Your task to perform on an android device: change the upload size in google photos Image 0: 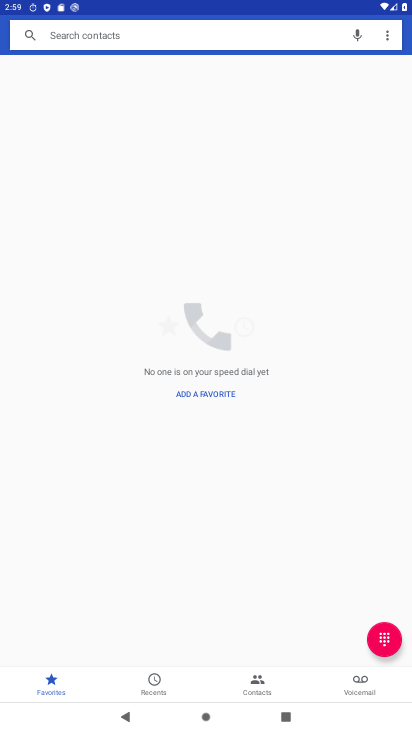
Step 0: press home button
Your task to perform on an android device: change the upload size in google photos Image 1: 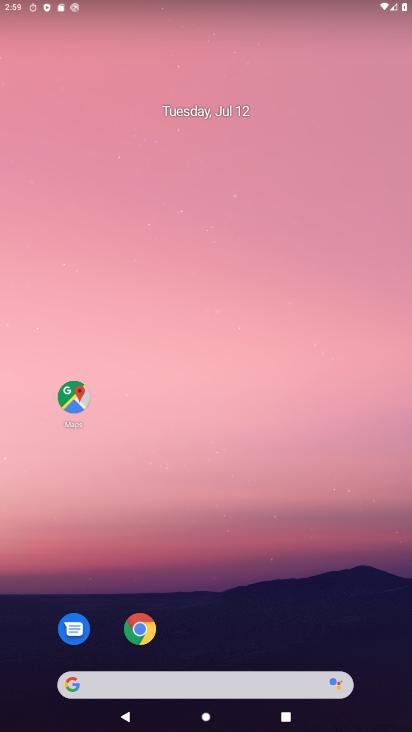
Step 1: drag from (236, 622) to (364, 34)
Your task to perform on an android device: change the upload size in google photos Image 2: 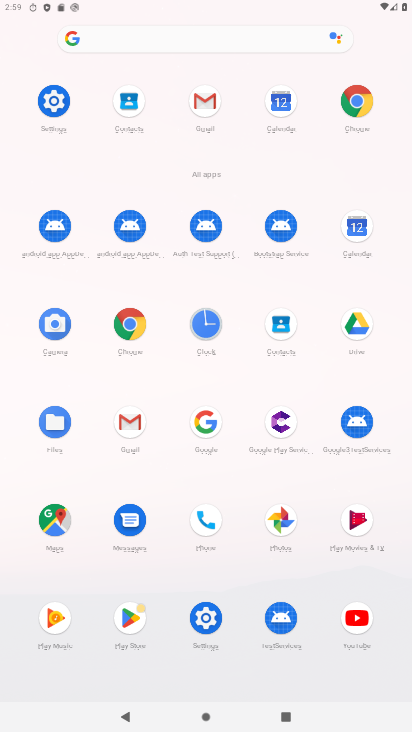
Step 2: click (275, 522)
Your task to perform on an android device: change the upload size in google photos Image 3: 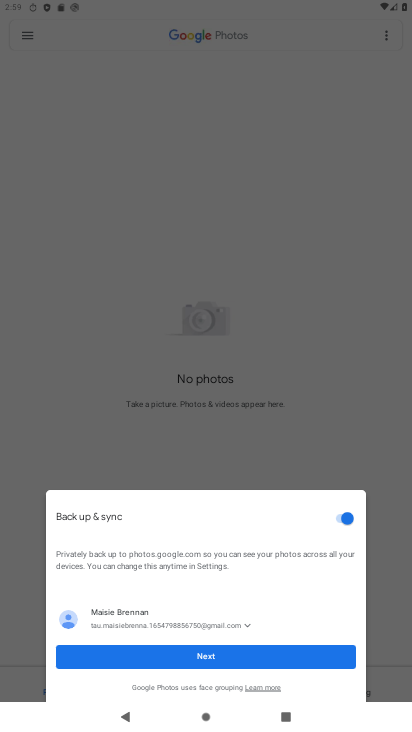
Step 3: click (320, 658)
Your task to perform on an android device: change the upload size in google photos Image 4: 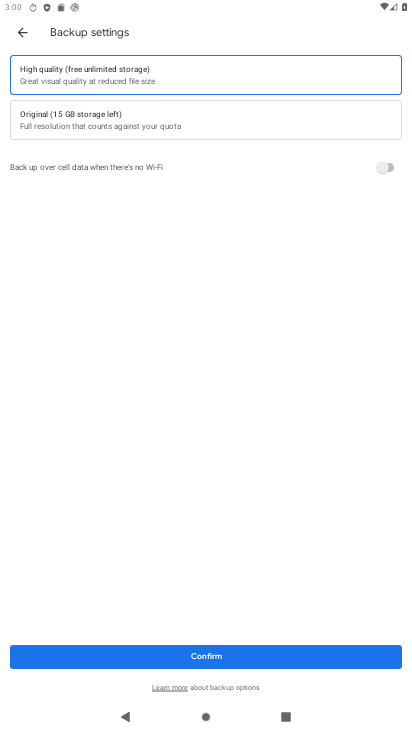
Step 4: click (15, 36)
Your task to perform on an android device: change the upload size in google photos Image 5: 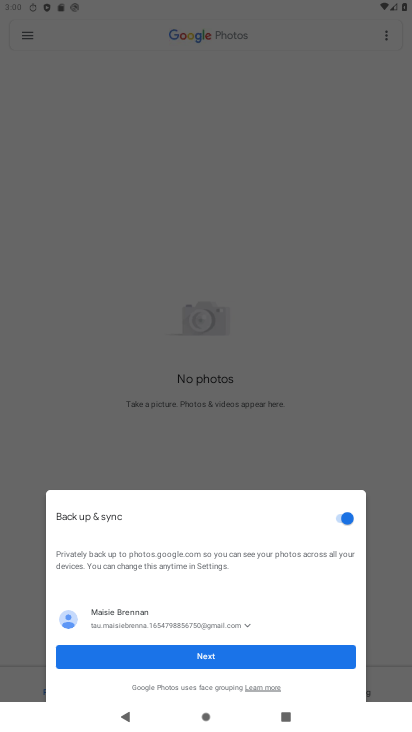
Step 5: click (172, 647)
Your task to perform on an android device: change the upload size in google photos Image 6: 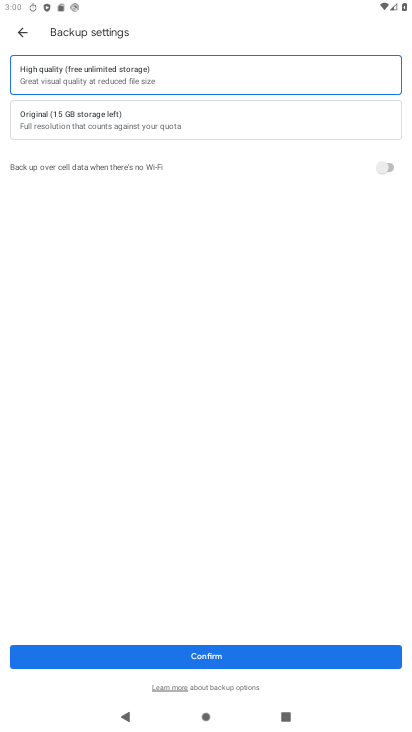
Step 6: click (15, 33)
Your task to perform on an android device: change the upload size in google photos Image 7: 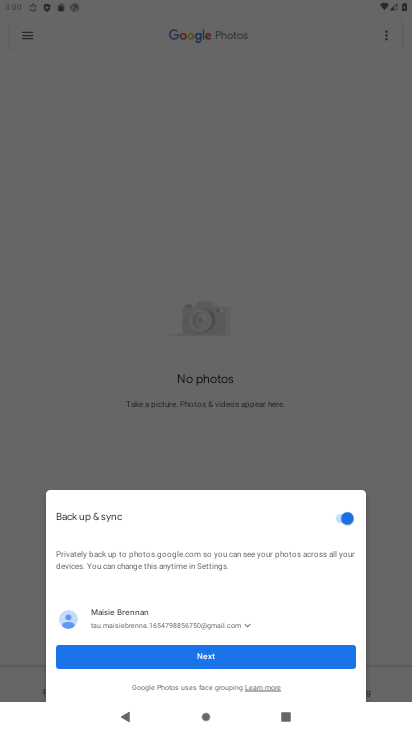
Step 7: click (143, 661)
Your task to perform on an android device: change the upload size in google photos Image 8: 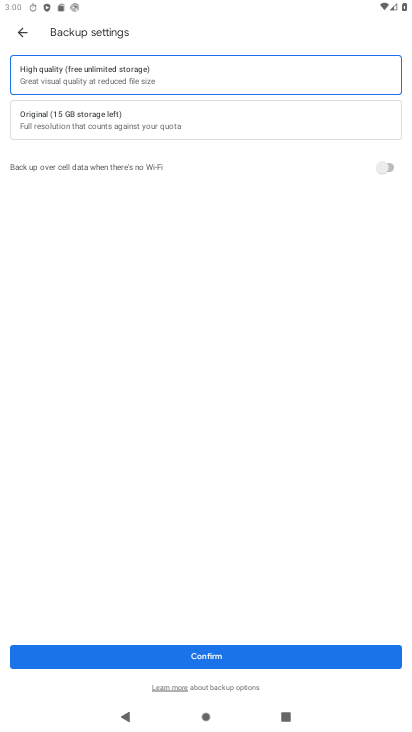
Step 8: click (143, 661)
Your task to perform on an android device: change the upload size in google photos Image 9: 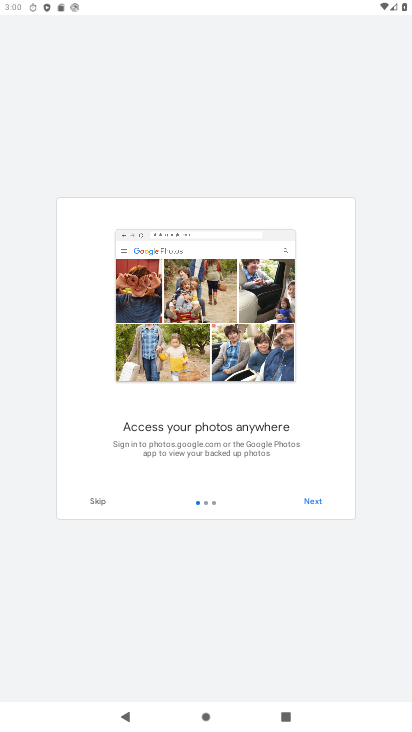
Step 9: click (94, 498)
Your task to perform on an android device: change the upload size in google photos Image 10: 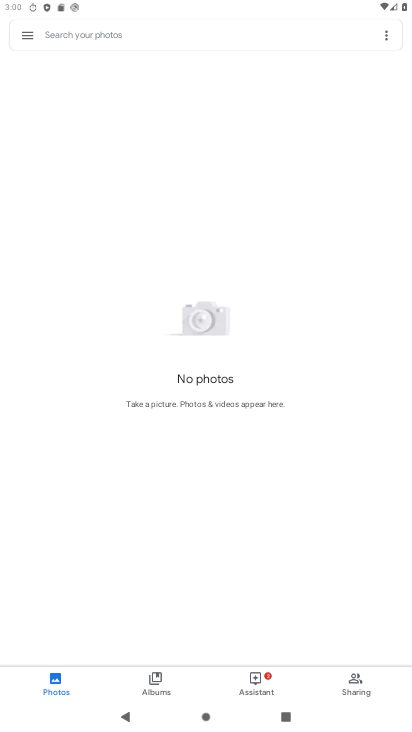
Step 10: click (53, 688)
Your task to perform on an android device: change the upload size in google photos Image 11: 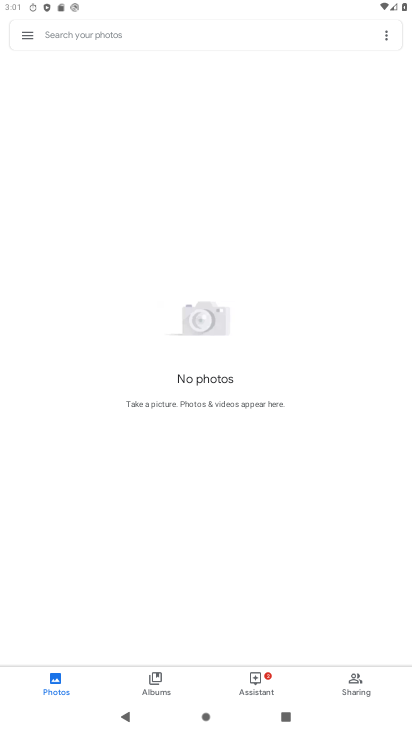
Step 11: click (53, 688)
Your task to perform on an android device: change the upload size in google photos Image 12: 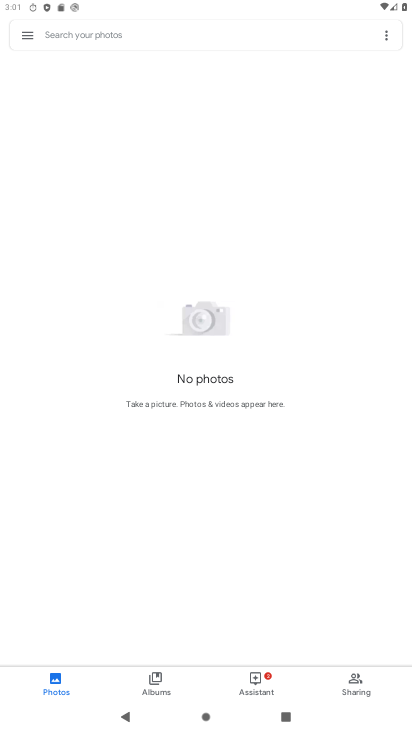
Step 12: click (36, 32)
Your task to perform on an android device: change the upload size in google photos Image 13: 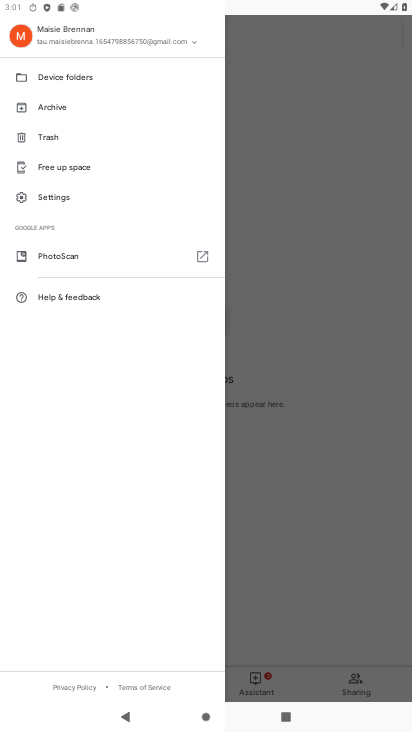
Step 13: click (42, 193)
Your task to perform on an android device: change the upload size in google photos Image 14: 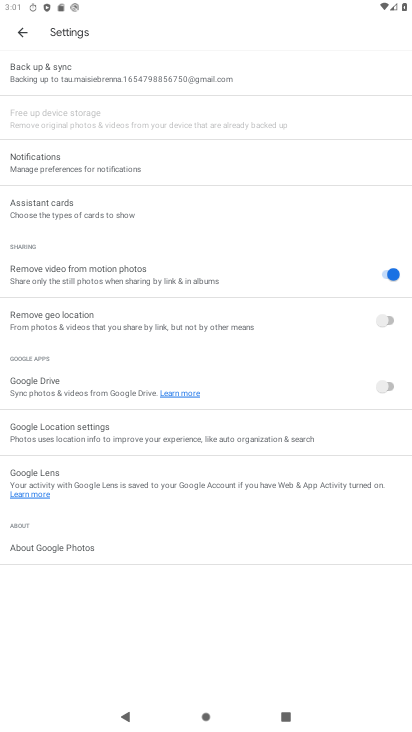
Step 14: click (32, 75)
Your task to perform on an android device: change the upload size in google photos Image 15: 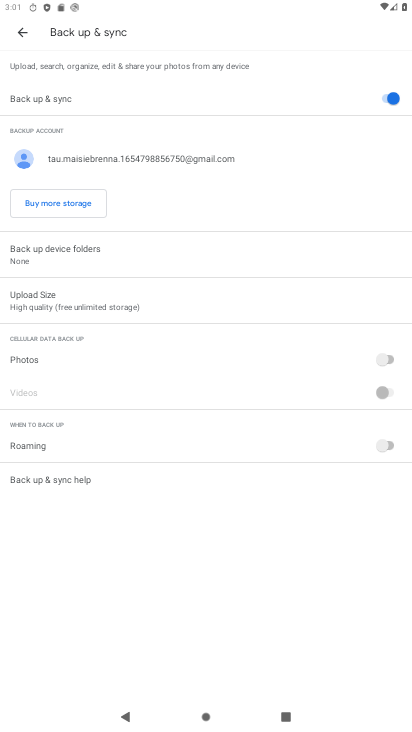
Step 15: click (43, 290)
Your task to perform on an android device: change the upload size in google photos Image 16: 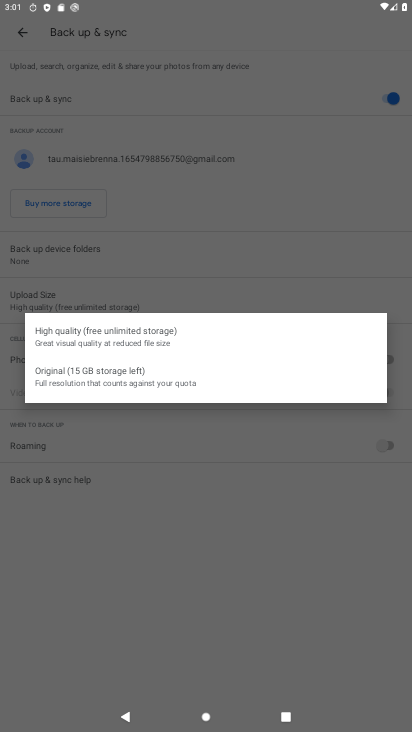
Step 16: click (75, 334)
Your task to perform on an android device: change the upload size in google photos Image 17: 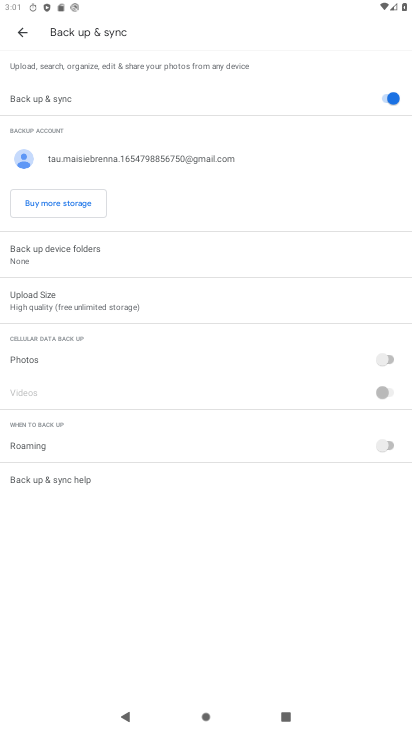
Step 17: task complete